Your task to perform on an android device: toggle notifications settings in the gmail app Image 0: 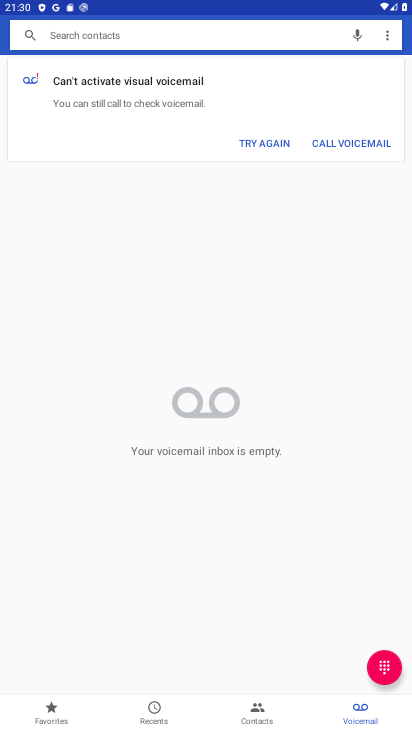
Step 0: press home button
Your task to perform on an android device: toggle notifications settings in the gmail app Image 1: 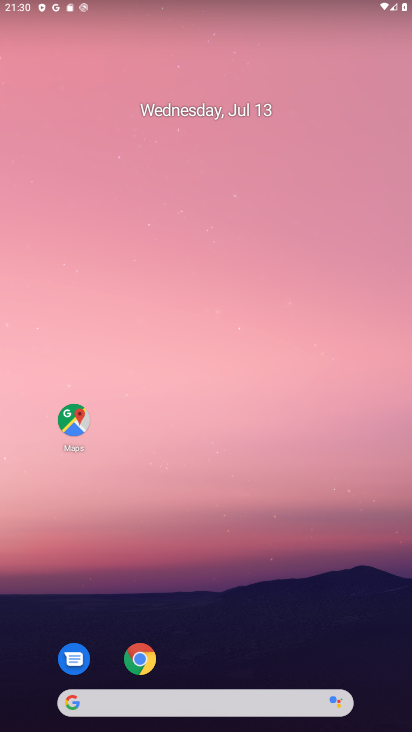
Step 1: drag from (194, 646) to (180, 220)
Your task to perform on an android device: toggle notifications settings in the gmail app Image 2: 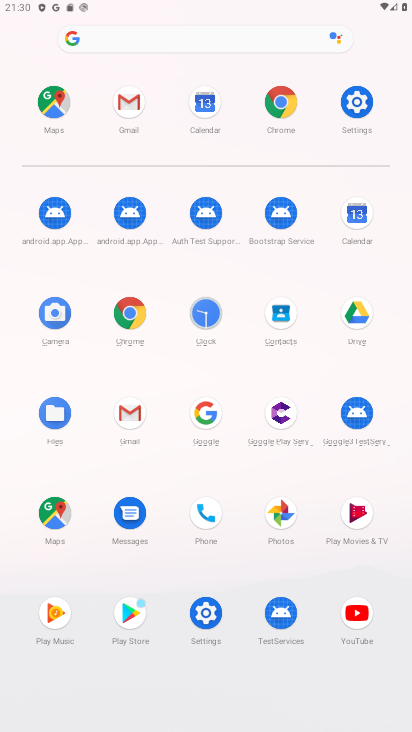
Step 2: click (119, 413)
Your task to perform on an android device: toggle notifications settings in the gmail app Image 3: 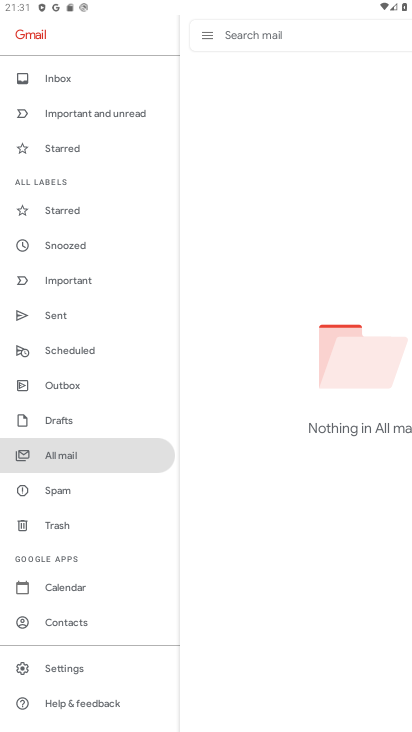
Step 3: click (109, 653)
Your task to perform on an android device: toggle notifications settings in the gmail app Image 4: 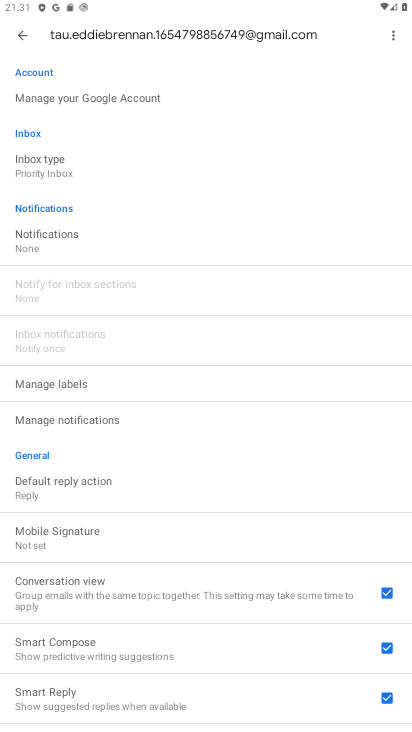
Step 4: click (67, 237)
Your task to perform on an android device: toggle notifications settings in the gmail app Image 5: 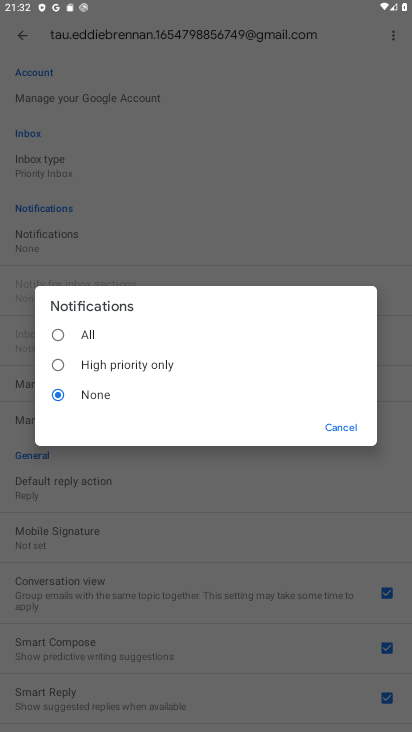
Step 5: click (74, 339)
Your task to perform on an android device: toggle notifications settings in the gmail app Image 6: 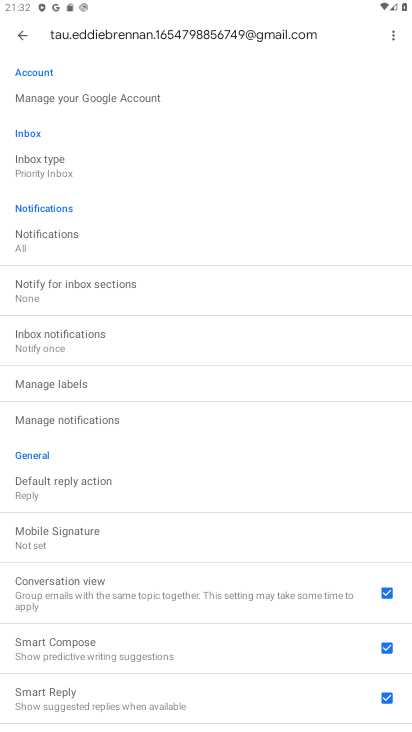
Step 6: task complete